Your task to perform on an android device: Open network settings Image 0: 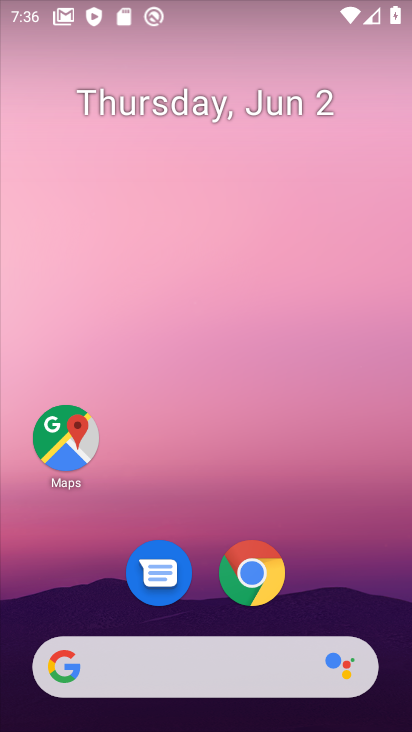
Step 0: drag from (354, 422) to (335, 22)
Your task to perform on an android device: Open network settings Image 1: 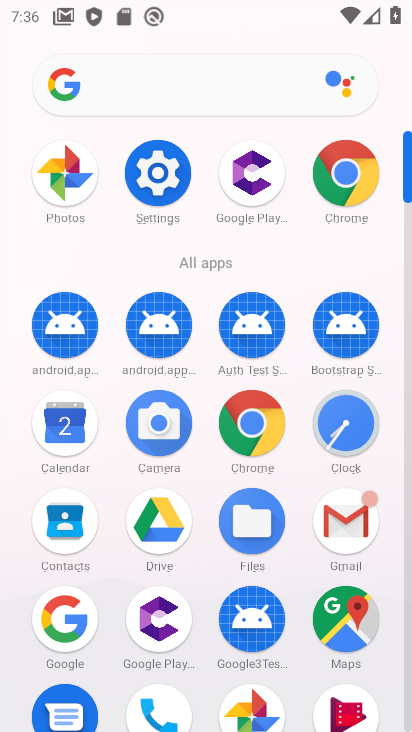
Step 1: click (160, 184)
Your task to perform on an android device: Open network settings Image 2: 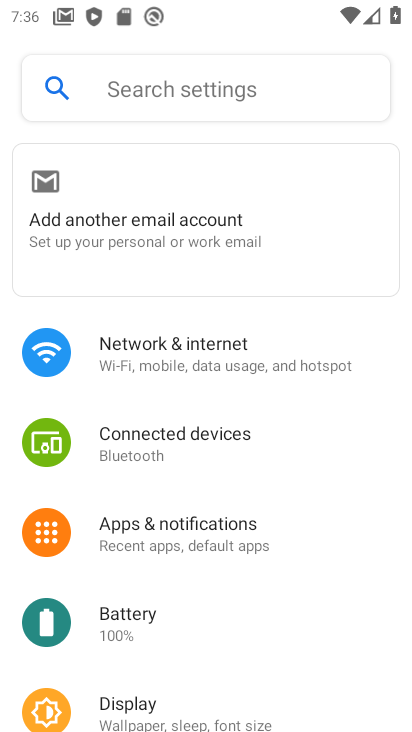
Step 2: click (166, 364)
Your task to perform on an android device: Open network settings Image 3: 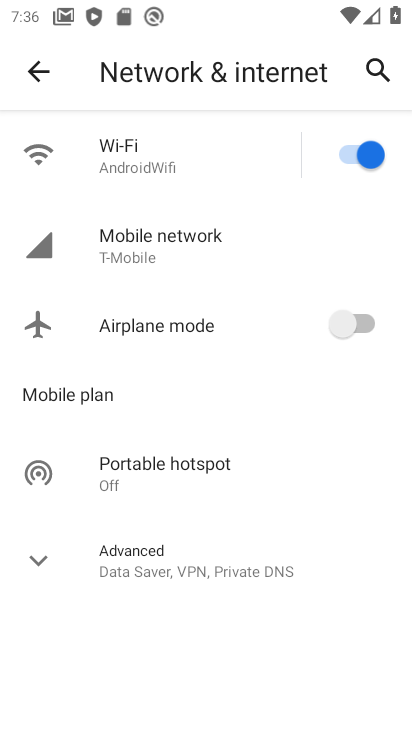
Step 3: task complete